Your task to perform on an android device: check battery use Image 0: 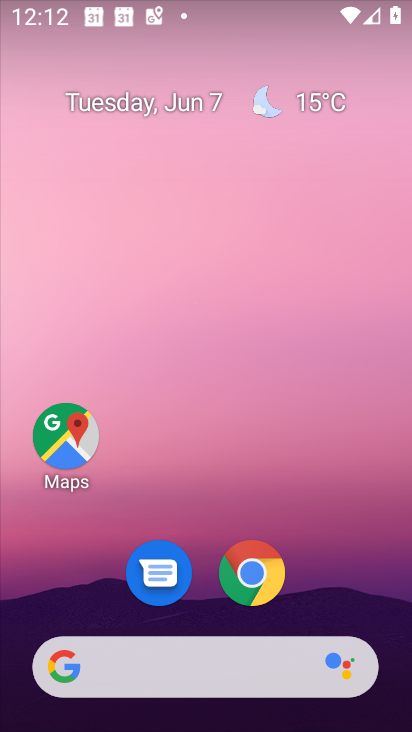
Step 0: press home button
Your task to perform on an android device: check battery use Image 1: 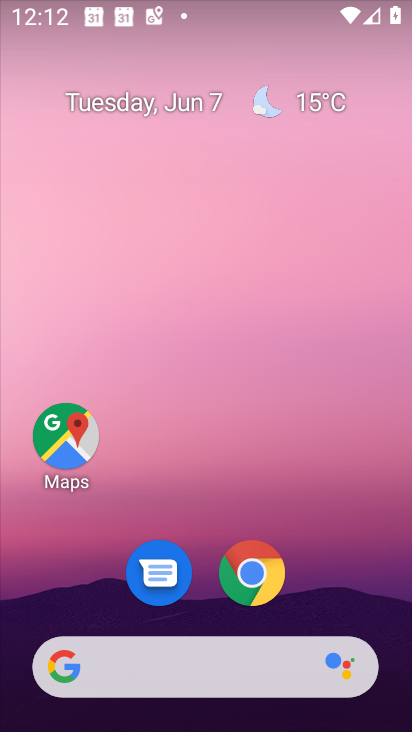
Step 1: drag from (343, 550) to (403, 132)
Your task to perform on an android device: check battery use Image 2: 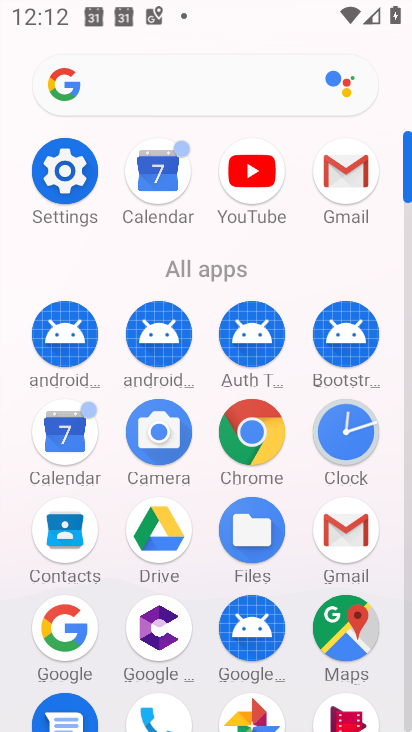
Step 2: click (53, 174)
Your task to perform on an android device: check battery use Image 3: 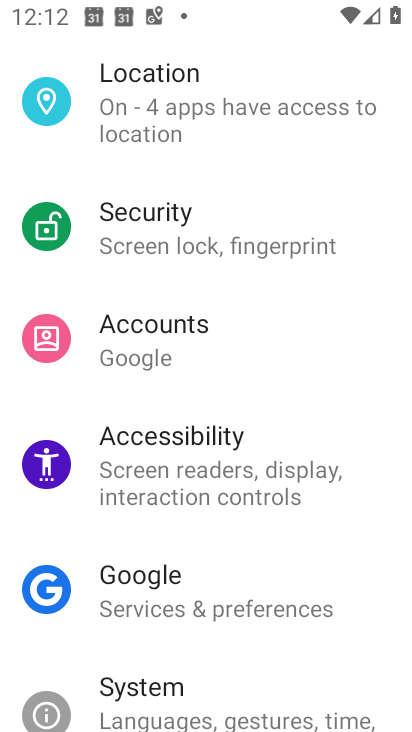
Step 3: drag from (268, 559) to (329, 32)
Your task to perform on an android device: check battery use Image 4: 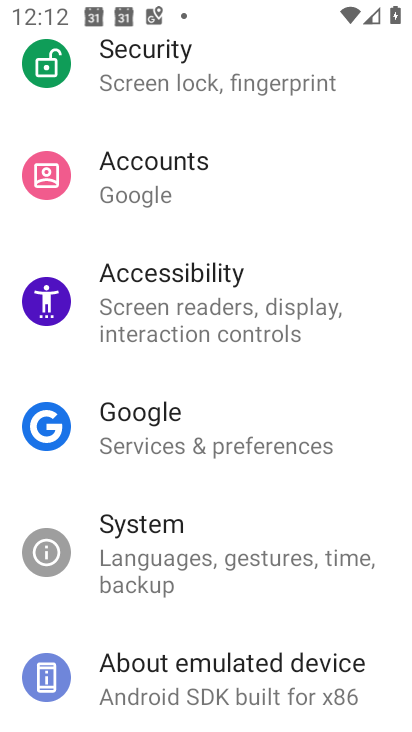
Step 4: drag from (318, 121) to (294, 724)
Your task to perform on an android device: check battery use Image 5: 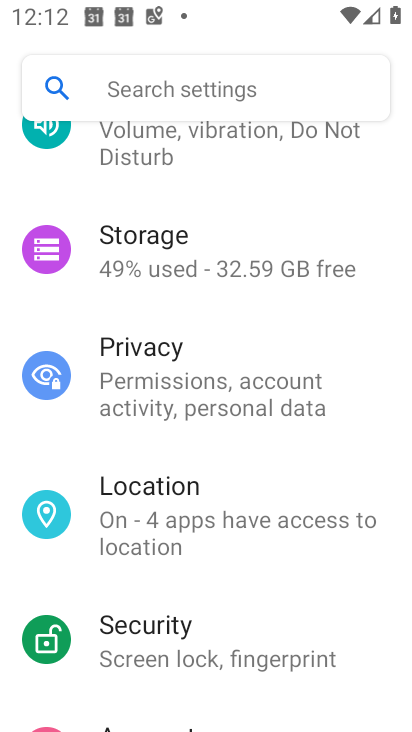
Step 5: drag from (275, 168) to (281, 603)
Your task to perform on an android device: check battery use Image 6: 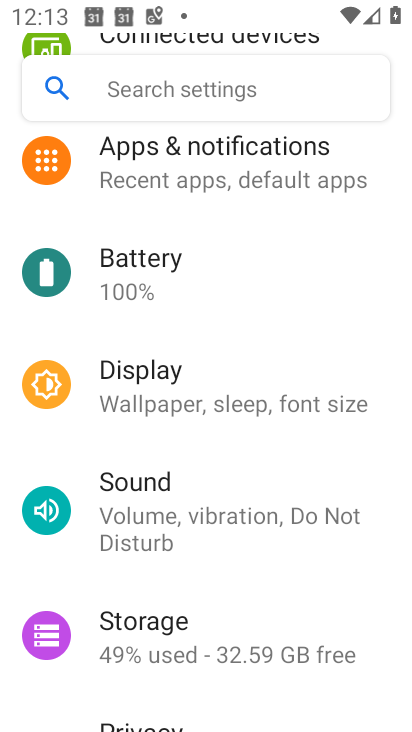
Step 6: click (163, 286)
Your task to perform on an android device: check battery use Image 7: 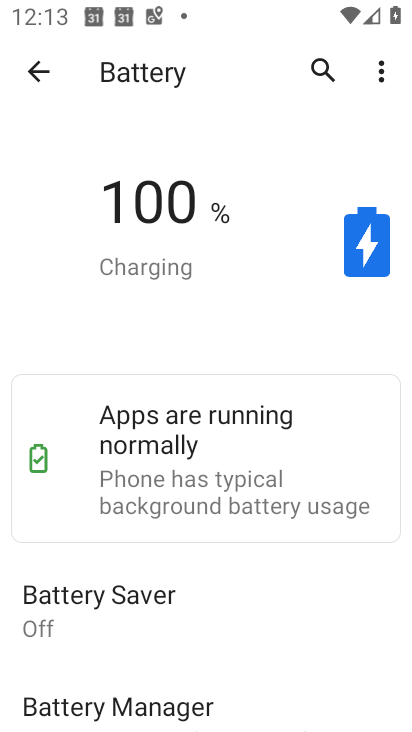
Step 7: click (388, 76)
Your task to perform on an android device: check battery use Image 8: 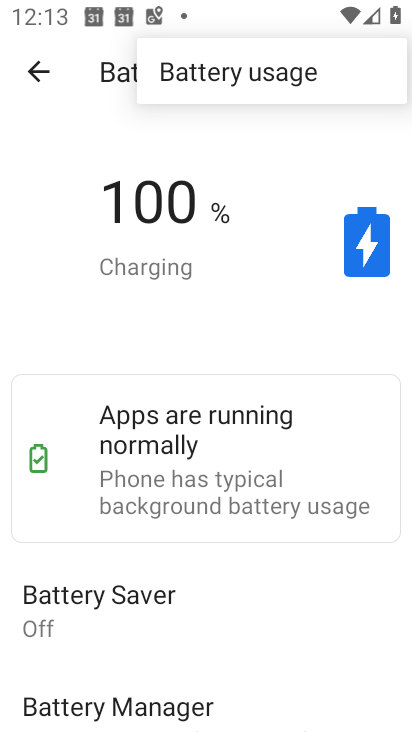
Step 8: click (291, 60)
Your task to perform on an android device: check battery use Image 9: 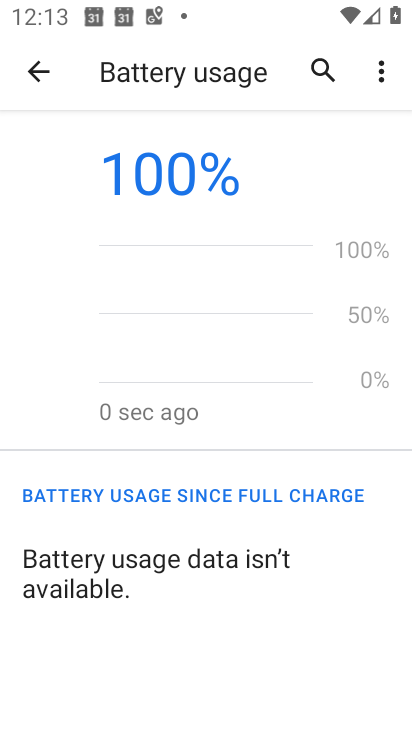
Step 9: task complete